Your task to perform on an android device: set an alarm Image 0: 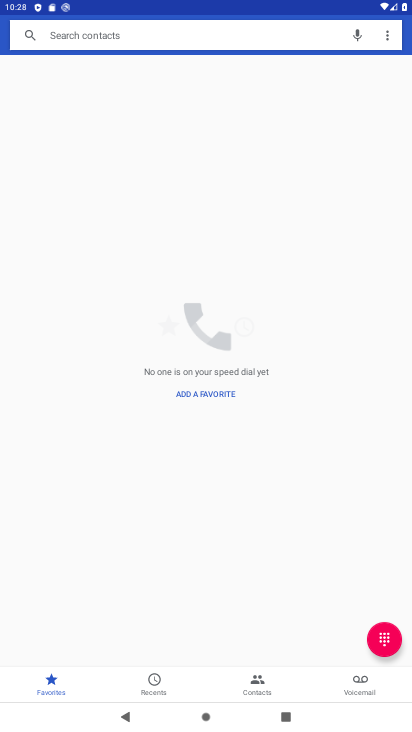
Step 0: press home button
Your task to perform on an android device: set an alarm Image 1: 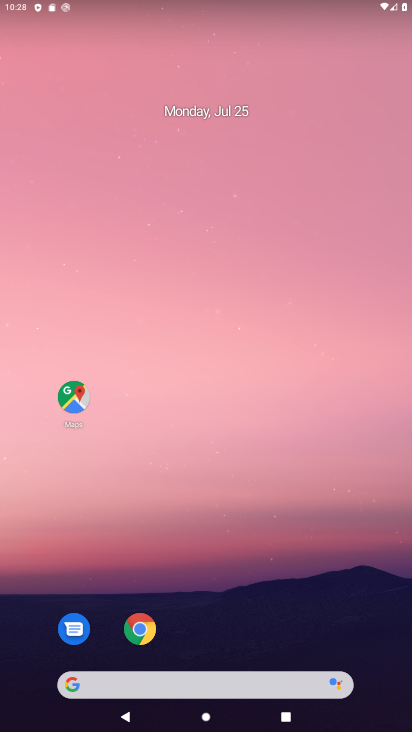
Step 1: drag from (278, 613) to (255, 14)
Your task to perform on an android device: set an alarm Image 2: 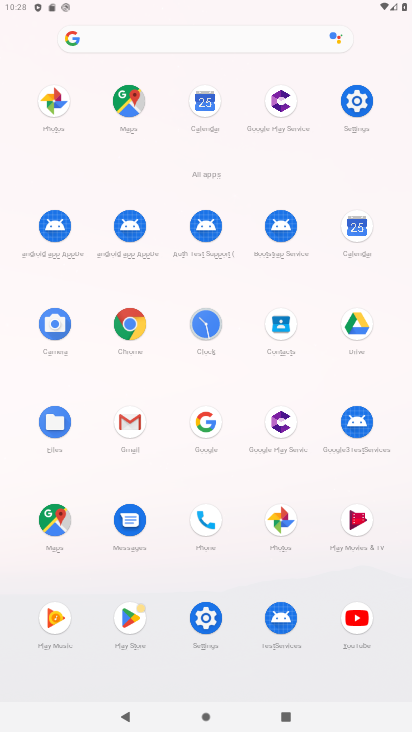
Step 2: click (197, 321)
Your task to perform on an android device: set an alarm Image 3: 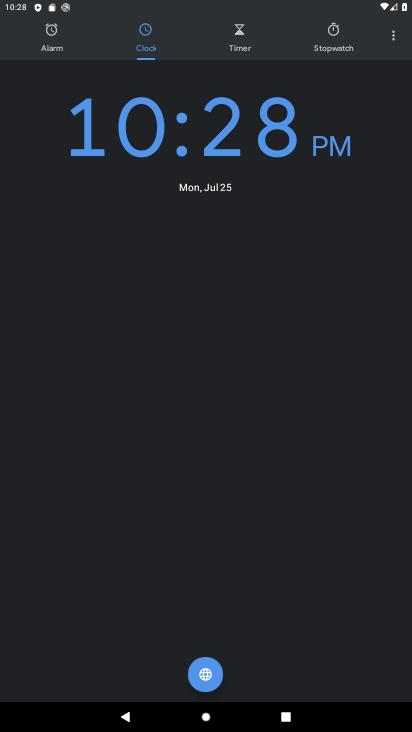
Step 3: click (47, 43)
Your task to perform on an android device: set an alarm Image 4: 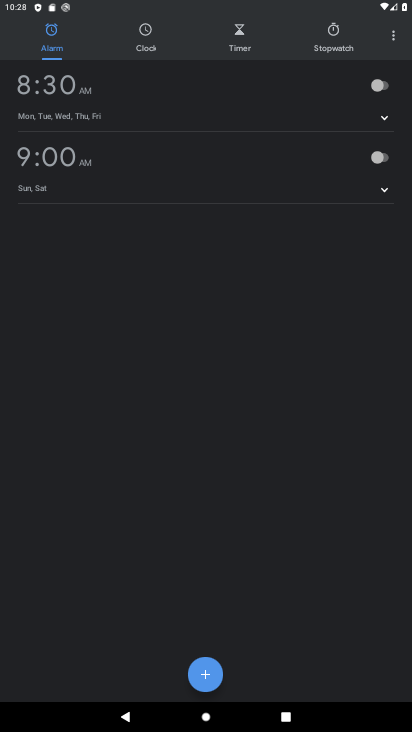
Step 4: click (201, 676)
Your task to perform on an android device: set an alarm Image 5: 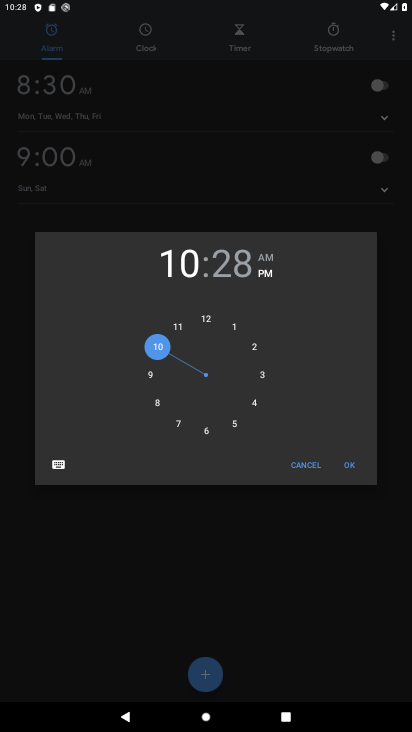
Step 5: click (348, 462)
Your task to perform on an android device: set an alarm Image 6: 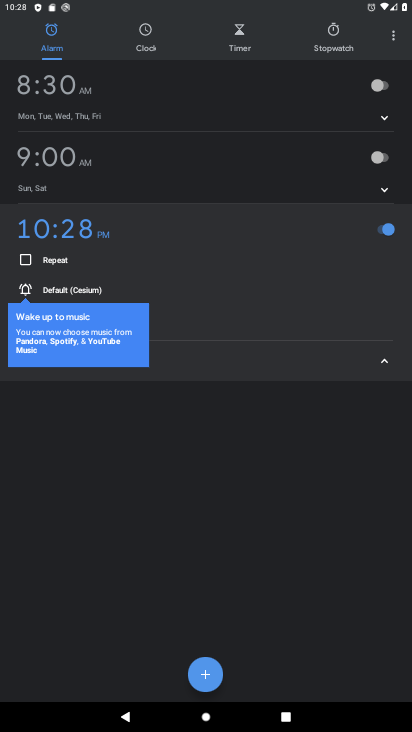
Step 6: task complete